Your task to perform on an android device: Search for Italian restaurants on Maps Image 0: 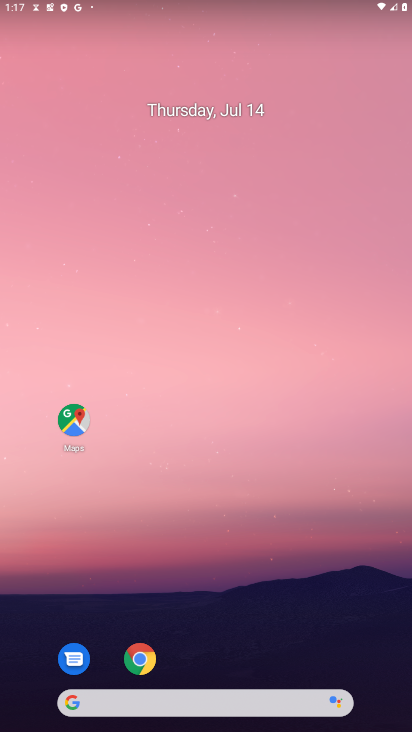
Step 0: drag from (40, 691) to (212, 234)
Your task to perform on an android device: Search for Italian restaurants on Maps Image 1: 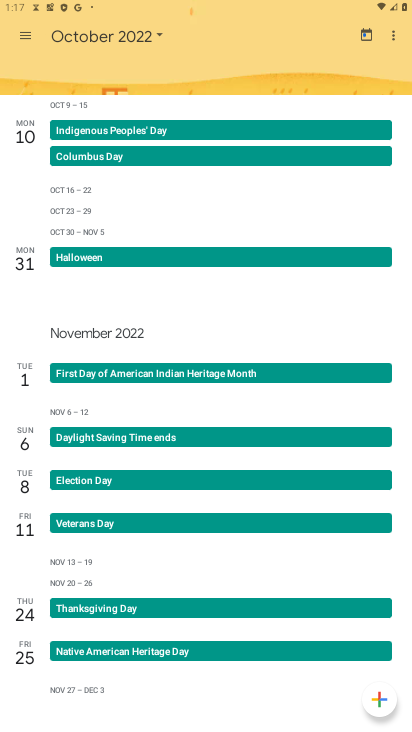
Step 1: click (97, 29)
Your task to perform on an android device: Search for Italian restaurants on Maps Image 2: 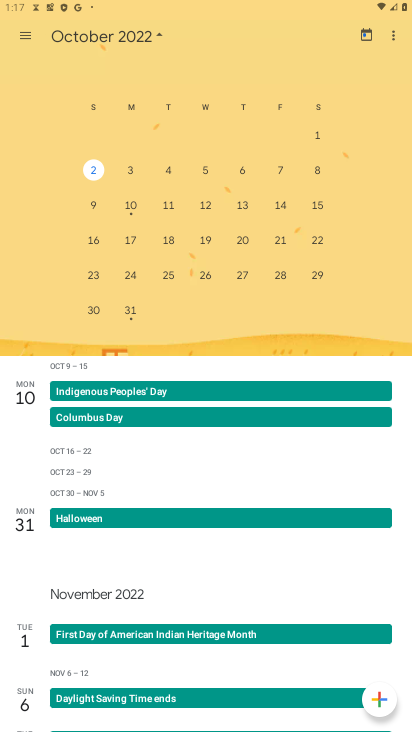
Step 2: drag from (22, 194) to (390, 222)
Your task to perform on an android device: Search for Italian restaurants on Maps Image 3: 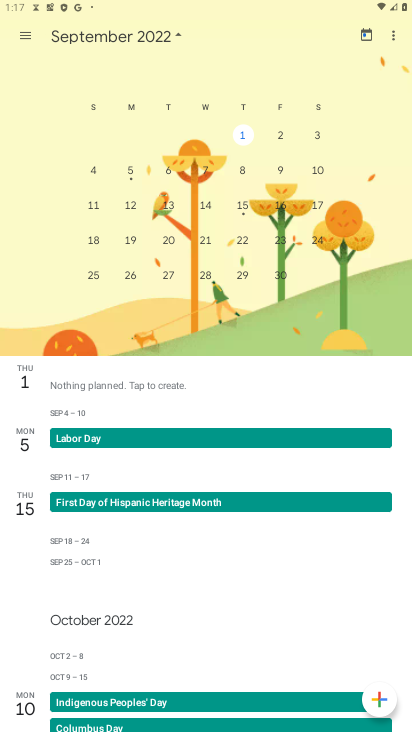
Step 3: press home button
Your task to perform on an android device: Search for Italian restaurants on Maps Image 4: 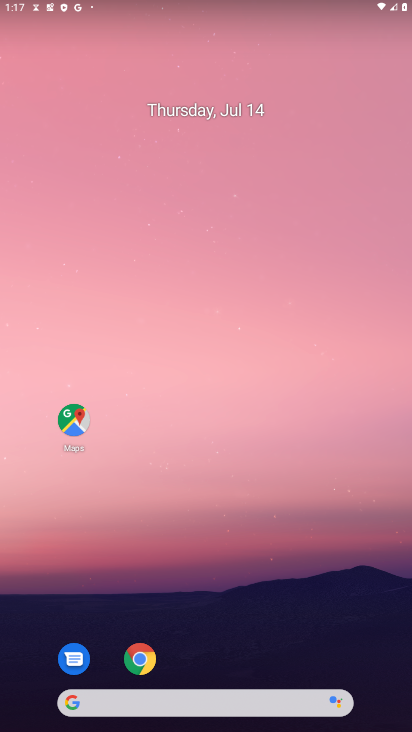
Step 4: click (67, 415)
Your task to perform on an android device: Search for Italian restaurants on Maps Image 5: 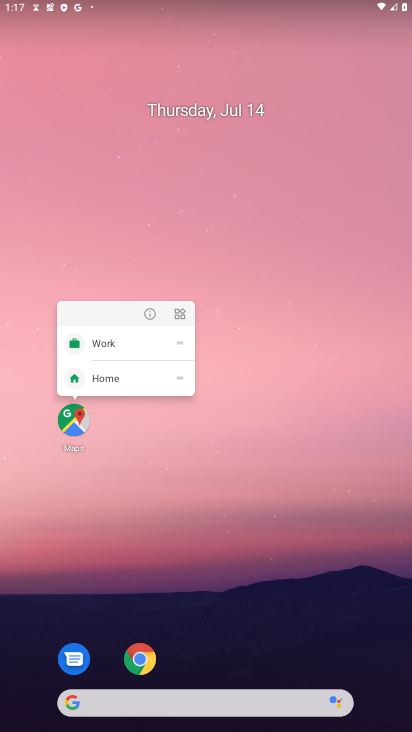
Step 5: click (121, 703)
Your task to perform on an android device: Search for Italian restaurants on Maps Image 6: 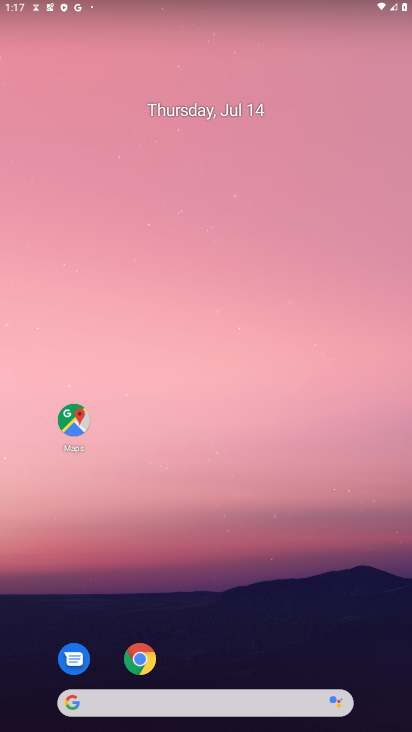
Step 6: click (106, 688)
Your task to perform on an android device: Search for Italian restaurants on Maps Image 7: 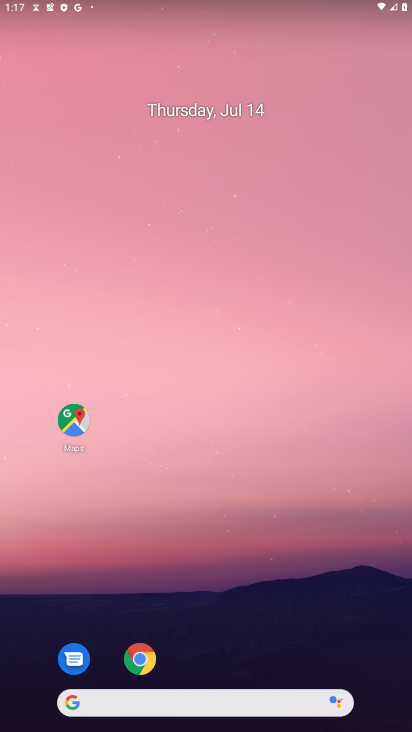
Step 7: click (110, 710)
Your task to perform on an android device: Search for Italian restaurants on Maps Image 8: 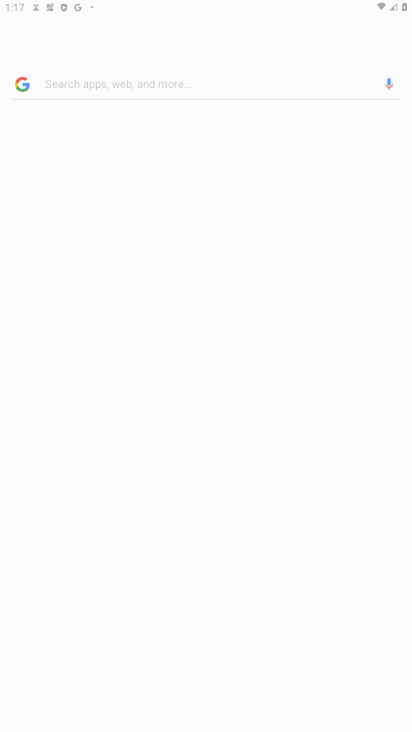
Step 8: click (114, 705)
Your task to perform on an android device: Search for Italian restaurants on Maps Image 9: 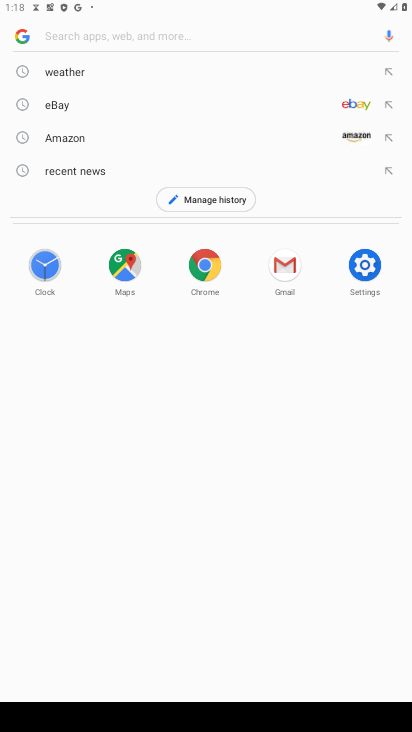
Step 9: type "Italian restaurants "
Your task to perform on an android device: Search for Italian restaurants on Maps Image 10: 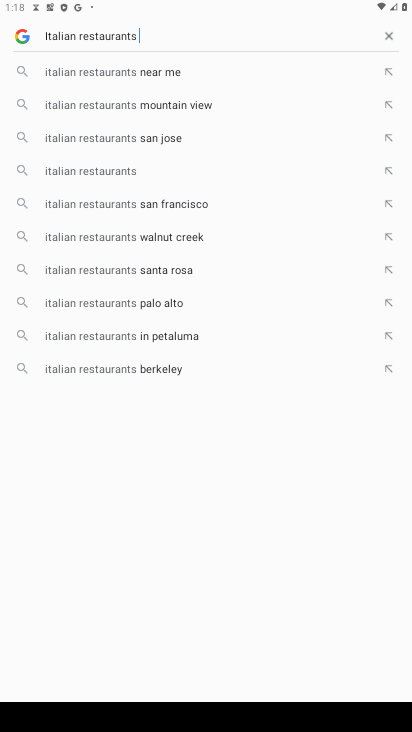
Step 10: type ""
Your task to perform on an android device: Search for Italian restaurants on Maps Image 11: 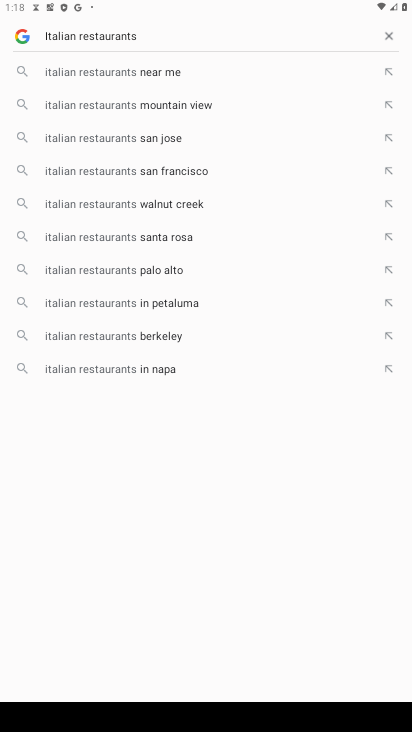
Step 11: type ""
Your task to perform on an android device: Search for Italian restaurants on Maps Image 12: 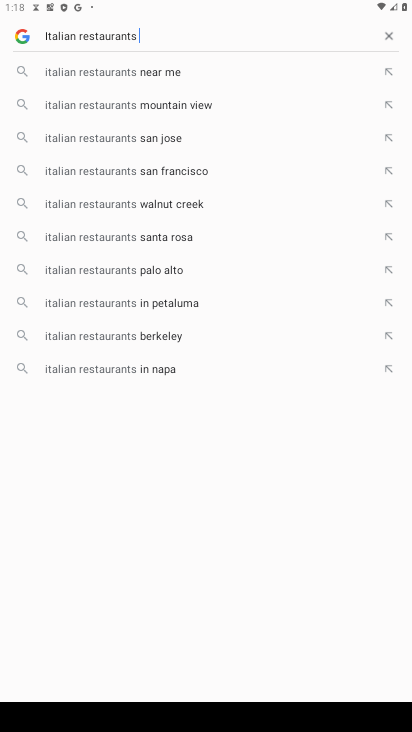
Step 12: type ""
Your task to perform on an android device: Search for Italian restaurants on Maps Image 13: 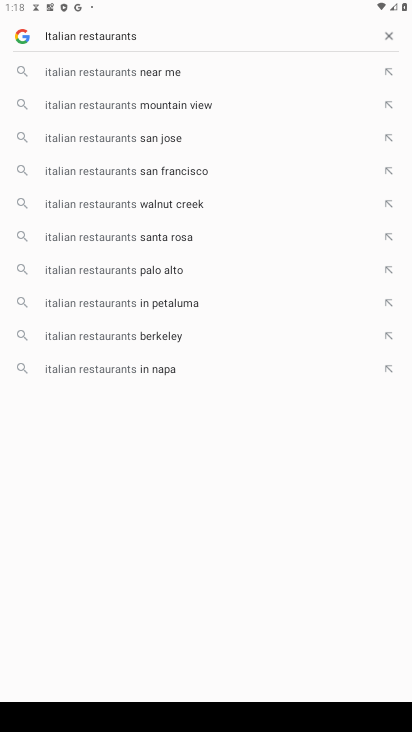
Step 13: type ""
Your task to perform on an android device: Search for Italian restaurants on Maps Image 14: 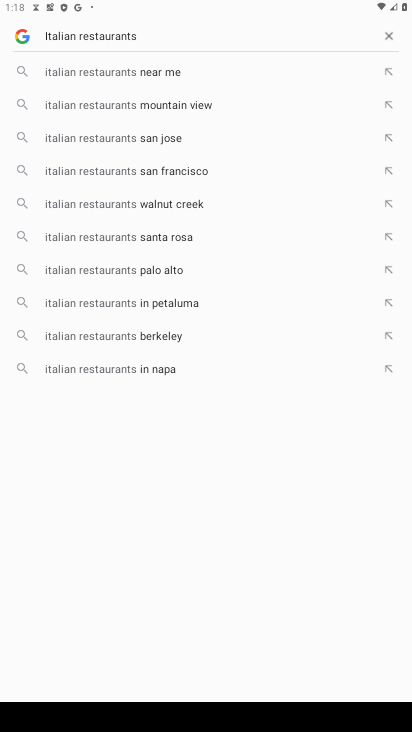
Step 14: task complete